Your task to perform on an android device: open app "File Manager" (install if not already installed) Image 0: 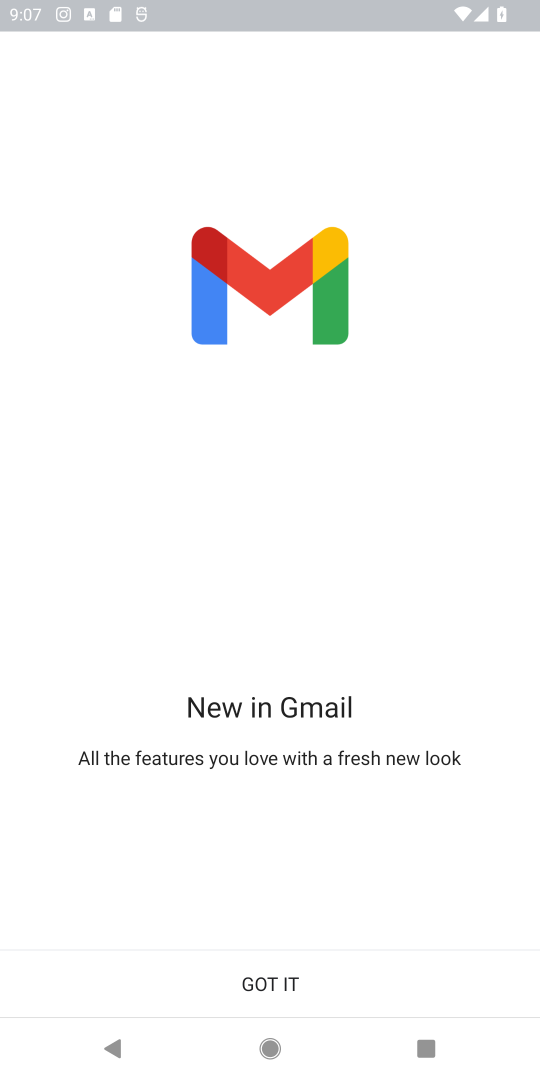
Step 0: press home button
Your task to perform on an android device: open app "File Manager" (install if not already installed) Image 1: 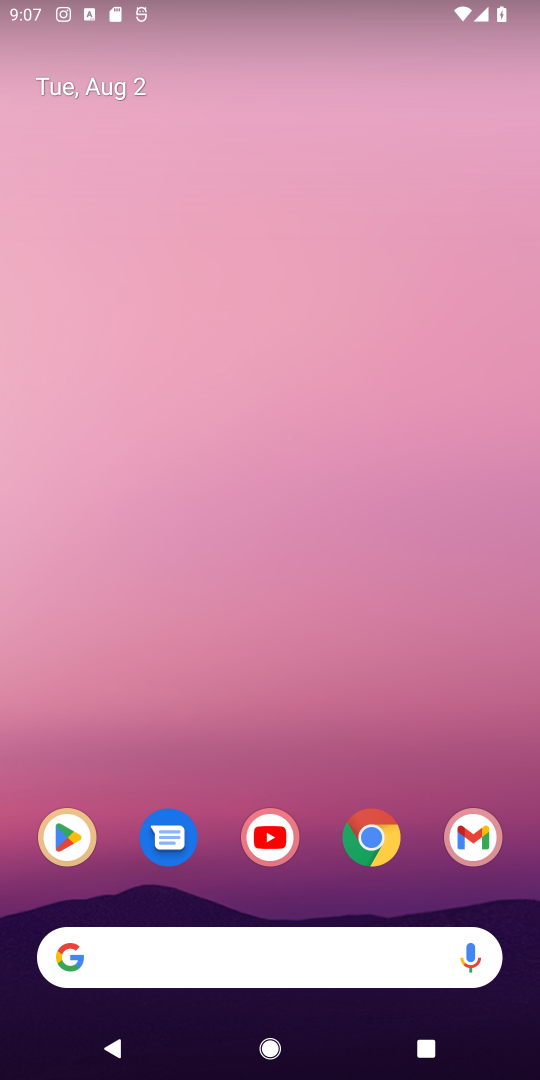
Step 1: click (70, 848)
Your task to perform on an android device: open app "File Manager" (install if not already installed) Image 2: 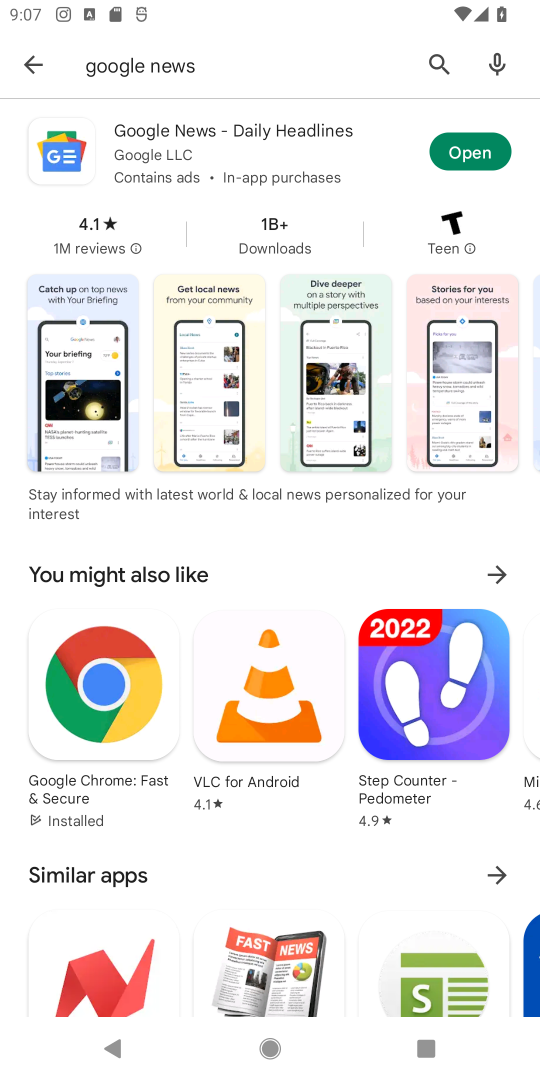
Step 2: click (431, 67)
Your task to perform on an android device: open app "File Manager" (install if not already installed) Image 3: 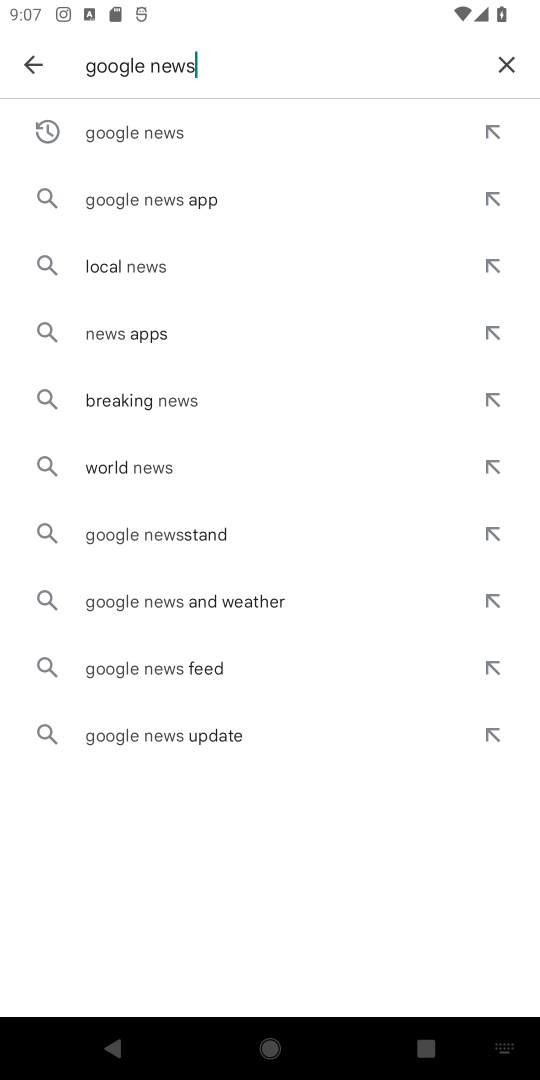
Step 3: click (515, 70)
Your task to perform on an android device: open app "File Manager" (install if not already installed) Image 4: 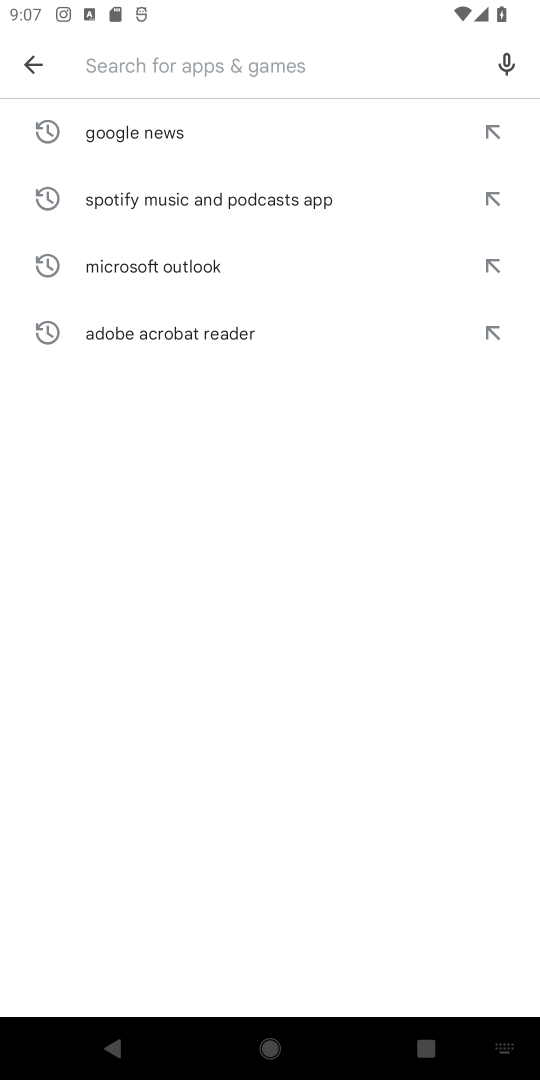
Step 4: type "File Manager"
Your task to perform on an android device: open app "File Manager" (install if not already installed) Image 5: 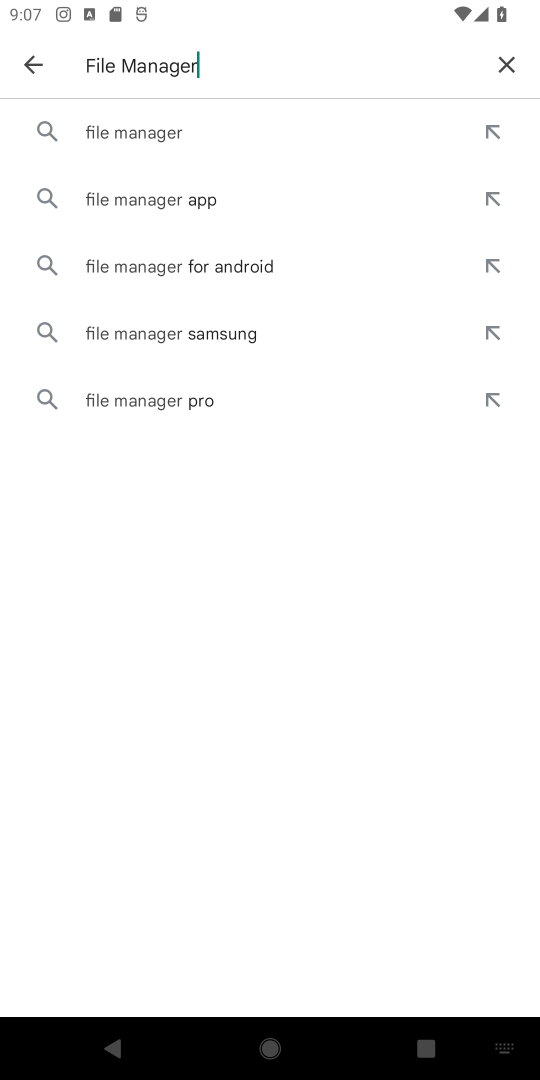
Step 5: click (142, 146)
Your task to perform on an android device: open app "File Manager" (install if not already installed) Image 6: 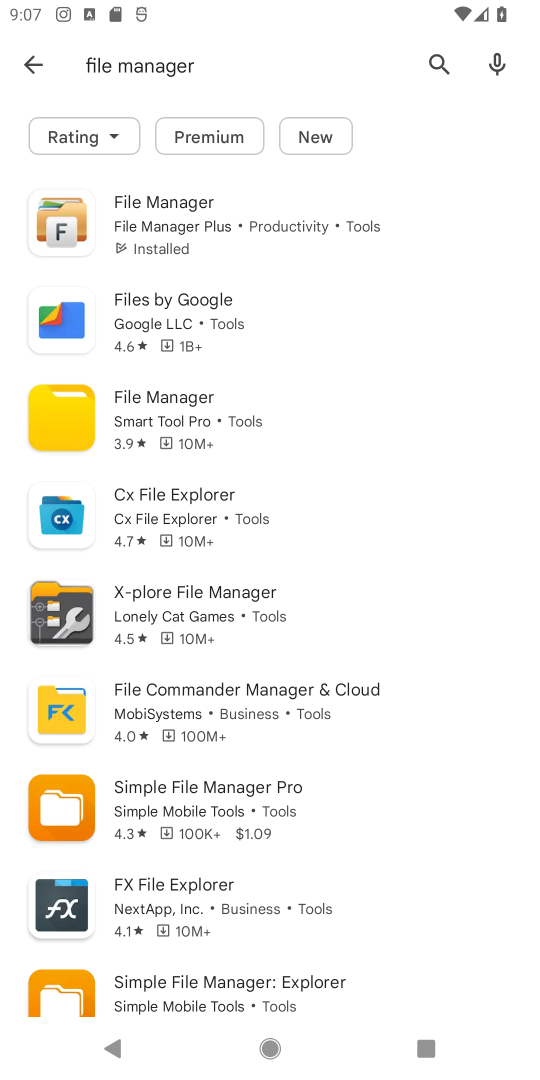
Step 6: click (146, 226)
Your task to perform on an android device: open app "File Manager" (install if not already installed) Image 7: 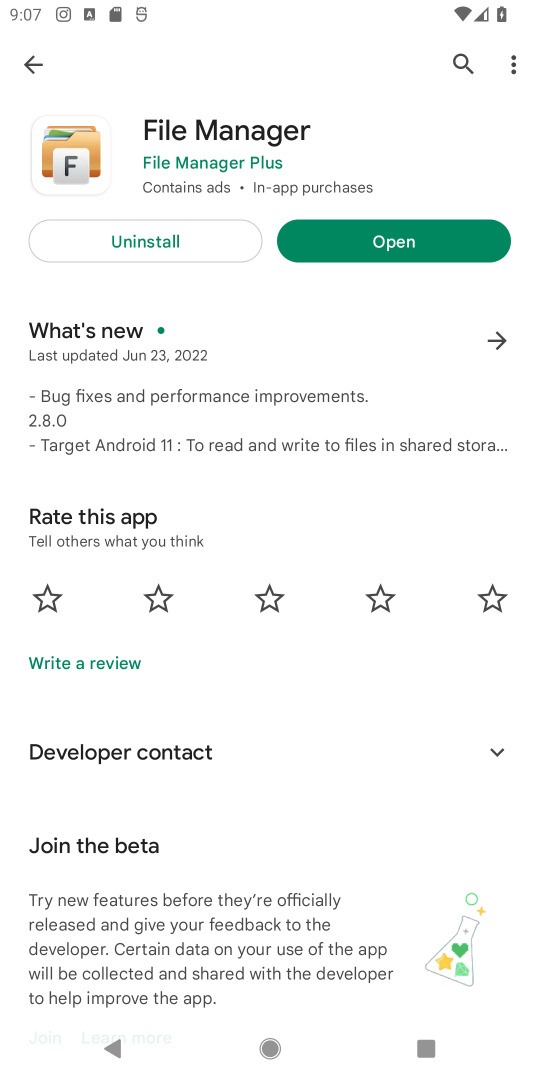
Step 7: click (360, 238)
Your task to perform on an android device: open app "File Manager" (install if not already installed) Image 8: 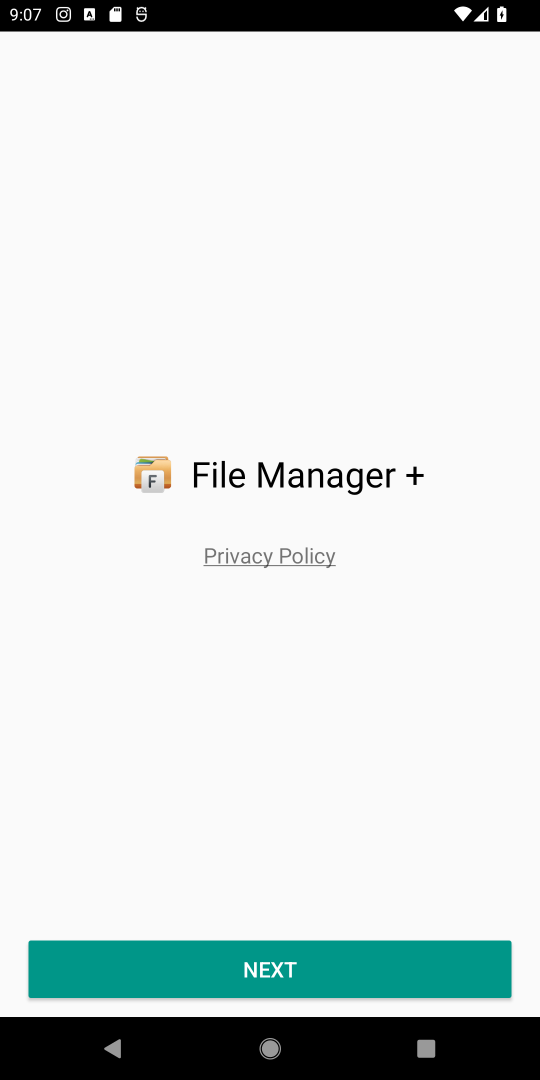
Step 8: task complete